Your task to perform on an android device: show emergency info Image 0: 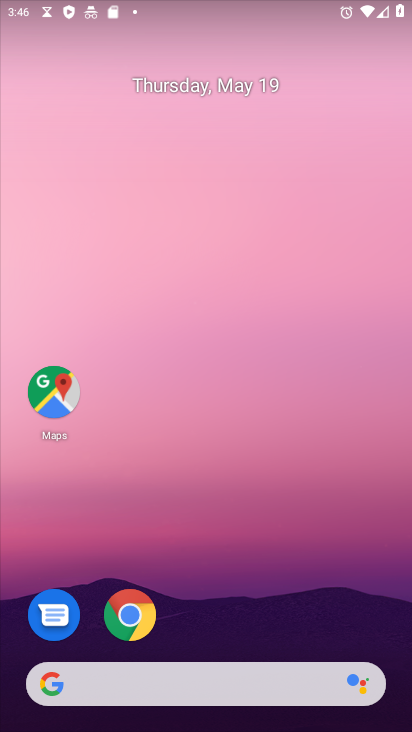
Step 0: drag from (240, 463) to (102, 2)
Your task to perform on an android device: show emergency info Image 1: 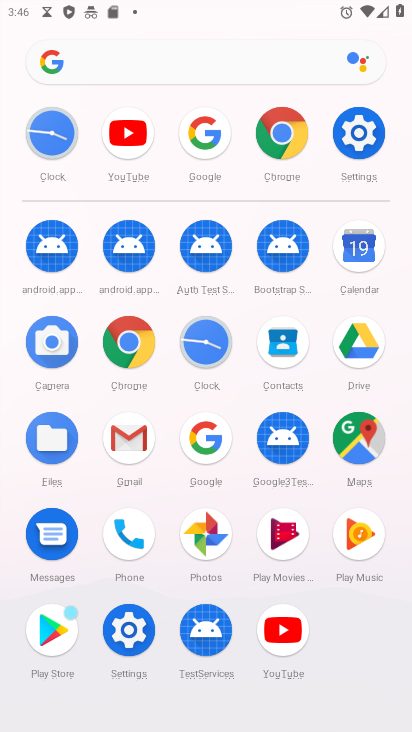
Step 1: click (284, 128)
Your task to perform on an android device: show emergency info Image 2: 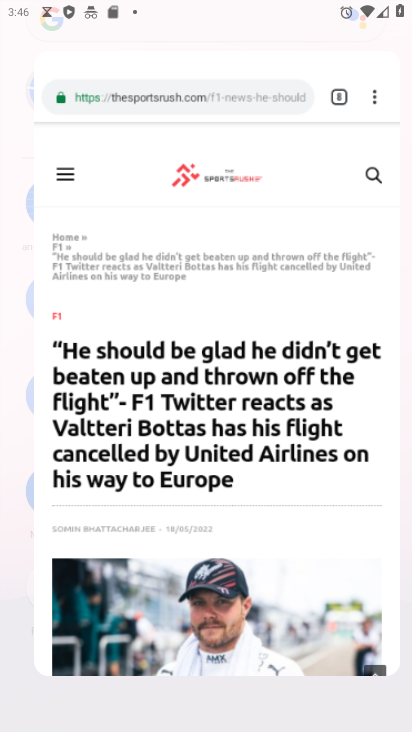
Step 2: click (282, 128)
Your task to perform on an android device: show emergency info Image 3: 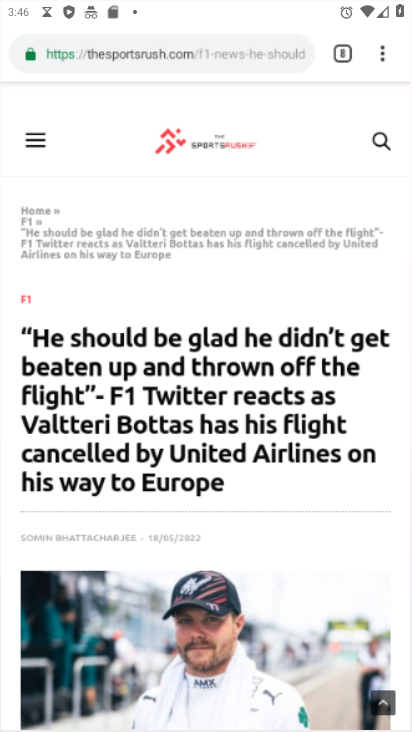
Step 3: click (281, 128)
Your task to perform on an android device: show emergency info Image 4: 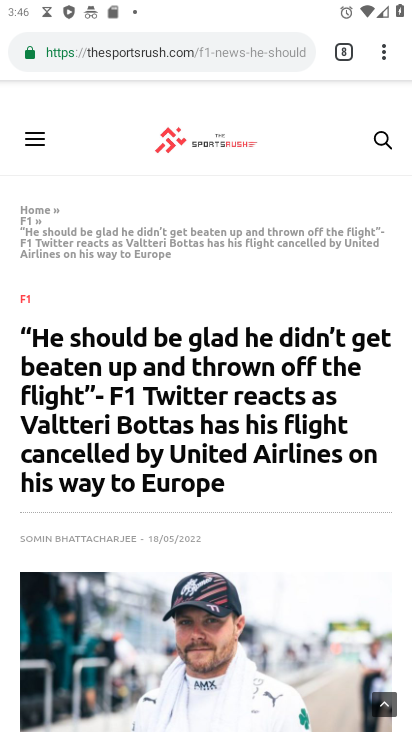
Step 4: drag from (283, 446) to (235, 144)
Your task to perform on an android device: show emergency info Image 5: 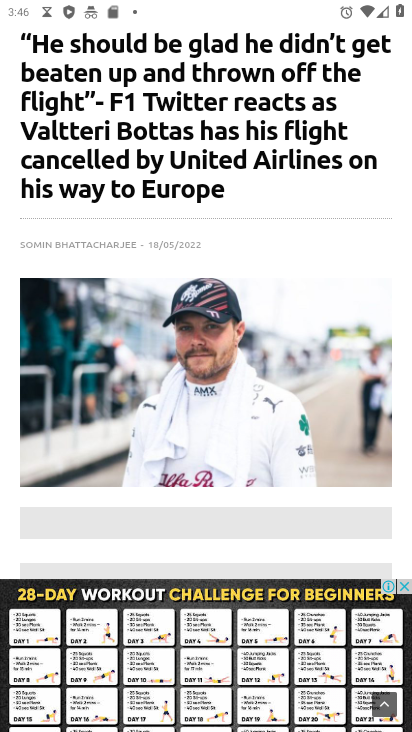
Step 5: drag from (238, 201) to (313, 428)
Your task to perform on an android device: show emergency info Image 6: 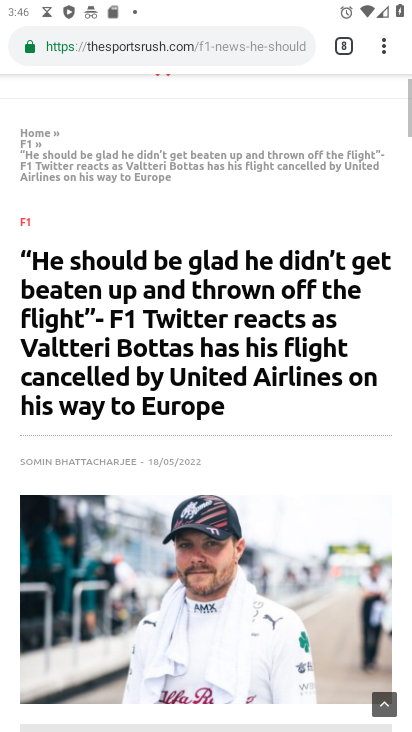
Step 6: drag from (279, 197) to (341, 486)
Your task to perform on an android device: show emergency info Image 7: 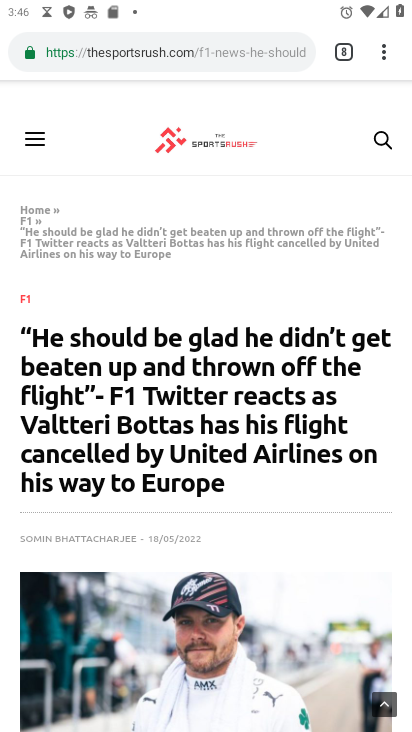
Step 7: press back button
Your task to perform on an android device: show emergency info Image 8: 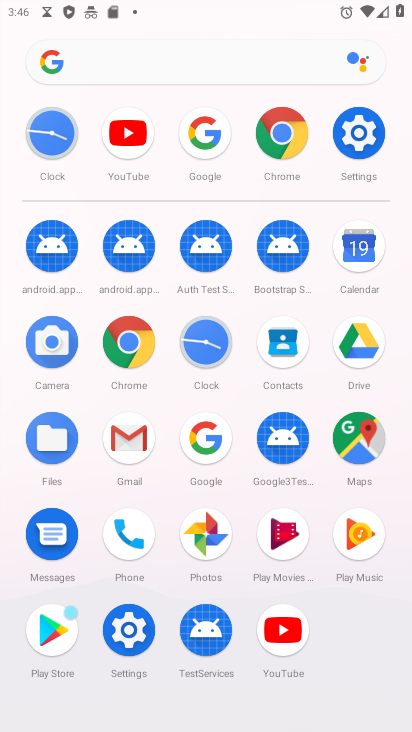
Step 8: click (132, 636)
Your task to perform on an android device: show emergency info Image 9: 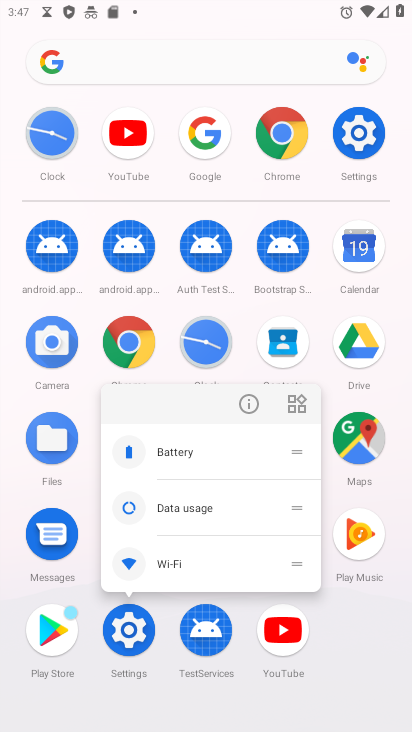
Step 9: click (137, 625)
Your task to perform on an android device: show emergency info Image 10: 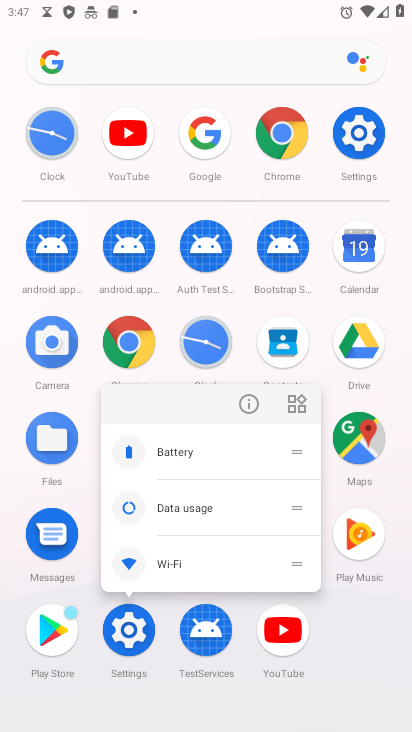
Step 10: click (123, 631)
Your task to perform on an android device: show emergency info Image 11: 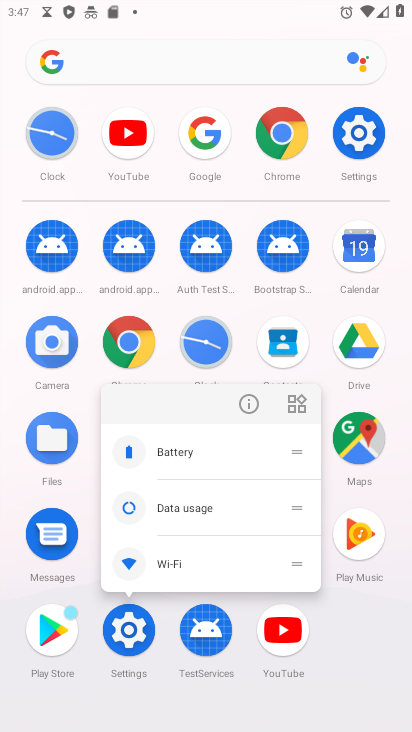
Step 11: click (117, 613)
Your task to perform on an android device: show emergency info Image 12: 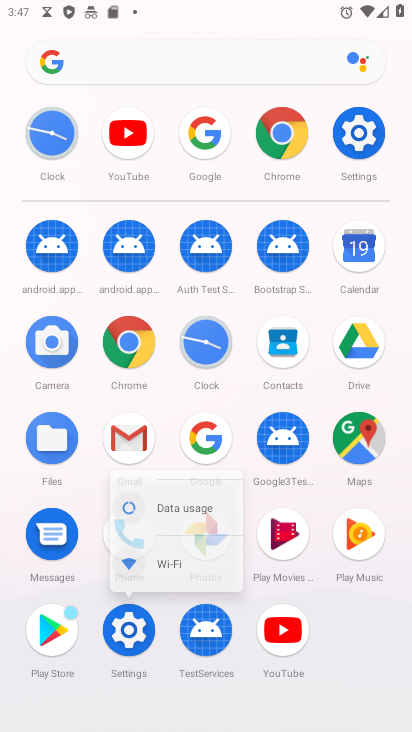
Step 12: click (118, 612)
Your task to perform on an android device: show emergency info Image 13: 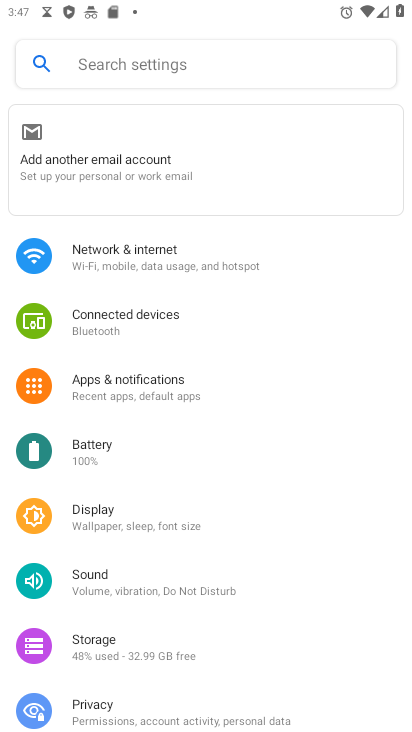
Step 13: drag from (188, 496) to (147, 155)
Your task to perform on an android device: show emergency info Image 14: 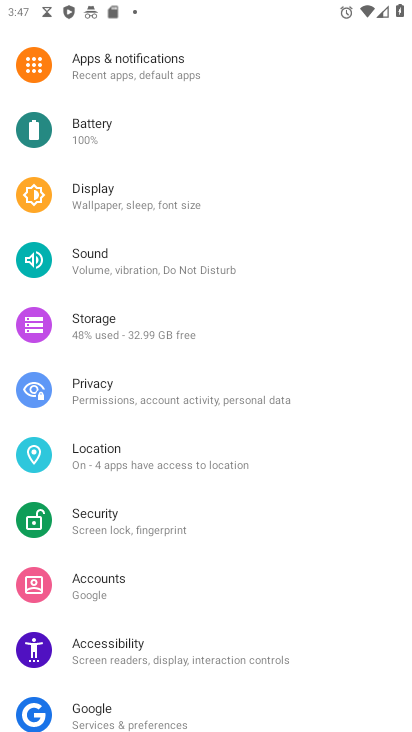
Step 14: click (161, 242)
Your task to perform on an android device: show emergency info Image 15: 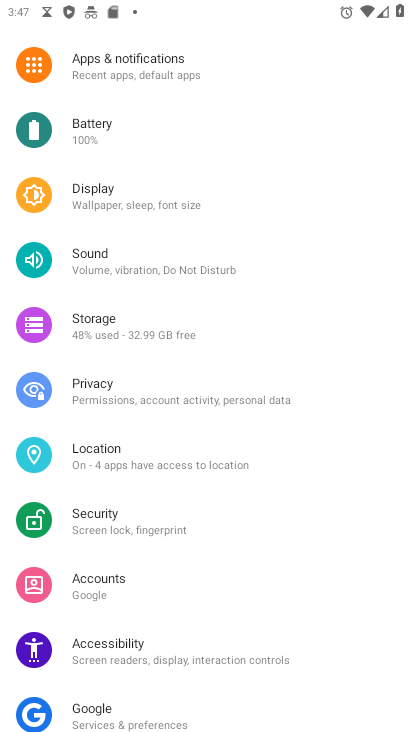
Step 15: drag from (259, 422) to (277, 115)
Your task to perform on an android device: show emergency info Image 16: 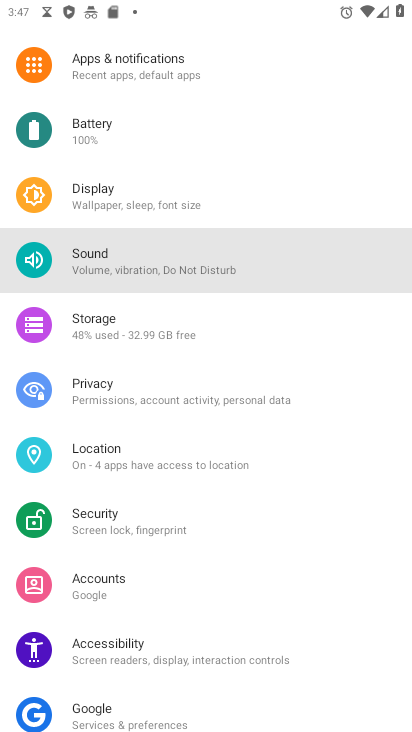
Step 16: drag from (287, 461) to (275, 200)
Your task to perform on an android device: show emergency info Image 17: 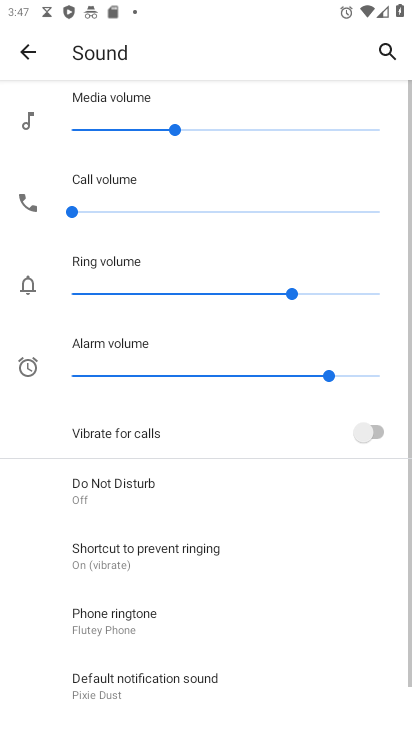
Step 17: click (14, 58)
Your task to perform on an android device: show emergency info Image 18: 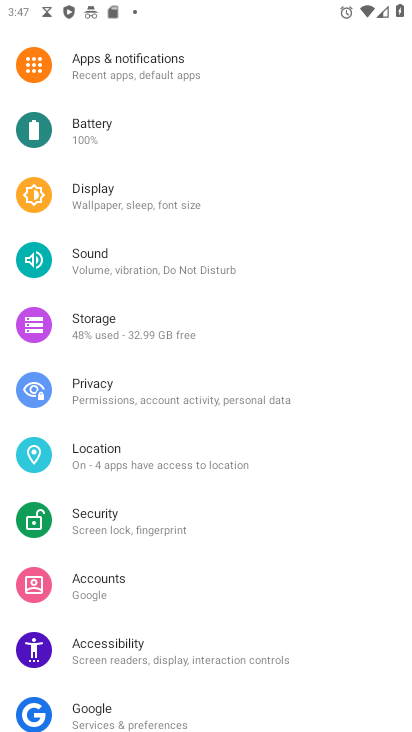
Step 18: drag from (156, 470) to (168, 234)
Your task to perform on an android device: show emergency info Image 19: 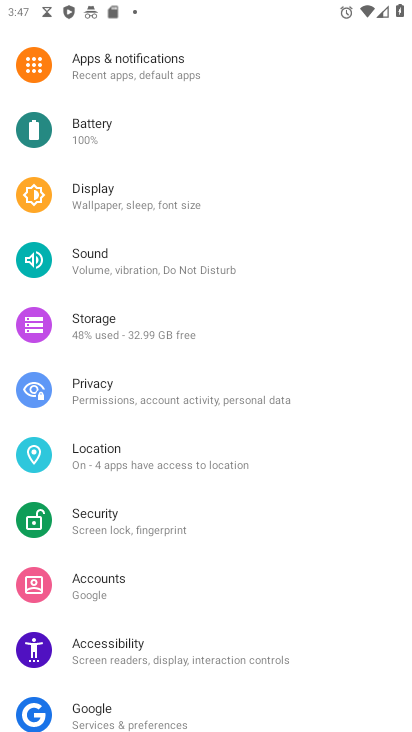
Step 19: drag from (168, 556) to (157, 32)
Your task to perform on an android device: show emergency info Image 20: 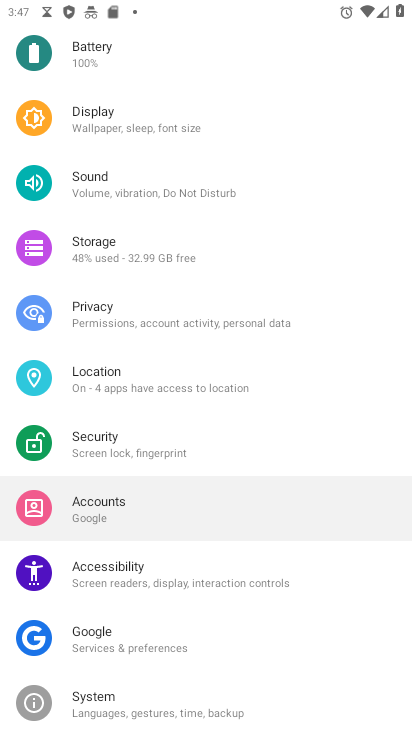
Step 20: drag from (200, 462) to (123, 86)
Your task to perform on an android device: show emergency info Image 21: 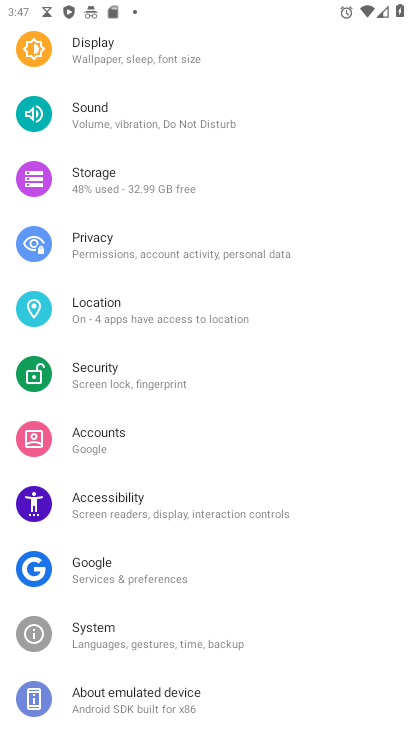
Step 21: click (124, 704)
Your task to perform on an android device: show emergency info Image 22: 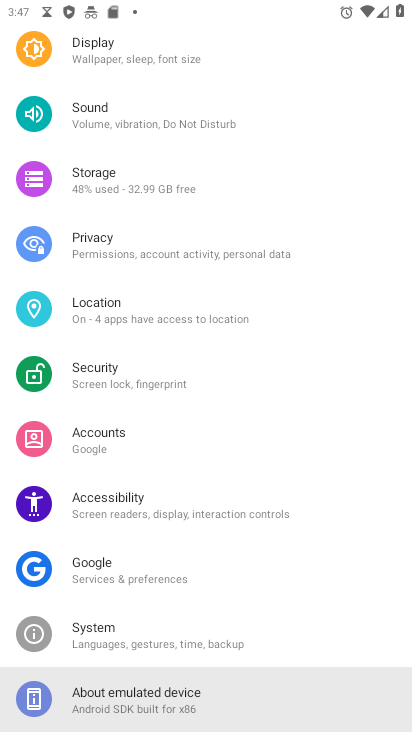
Step 22: click (124, 705)
Your task to perform on an android device: show emergency info Image 23: 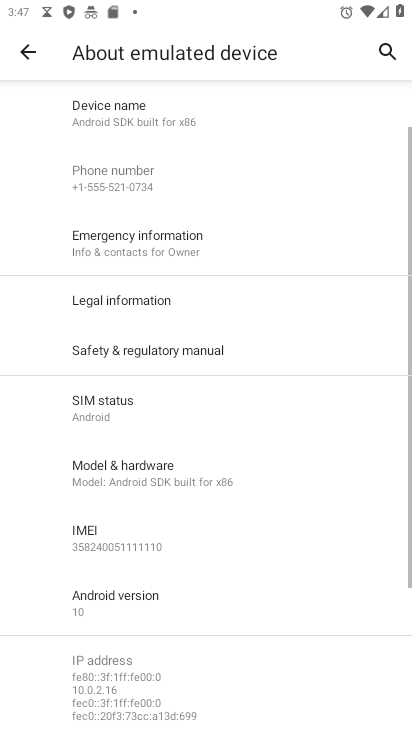
Step 23: task complete